Your task to perform on an android device: Go to privacy settings Image 0: 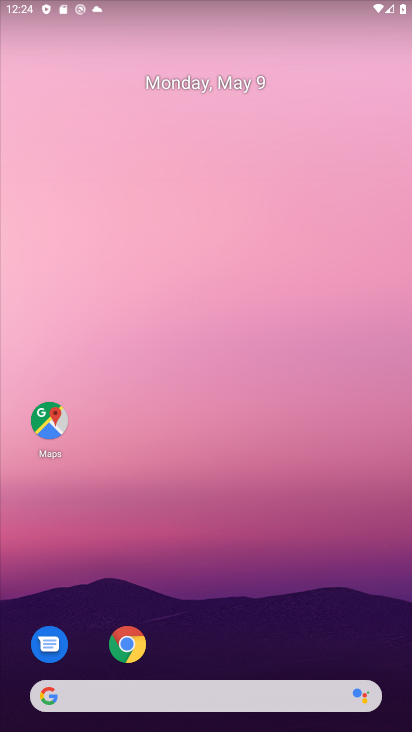
Step 0: click (67, 12)
Your task to perform on an android device: Go to privacy settings Image 1: 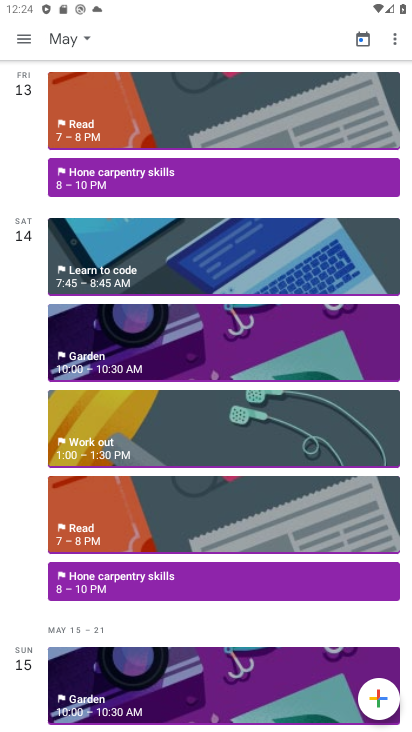
Step 1: press home button
Your task to perform on an android device: Go to privacy settings Image 2: 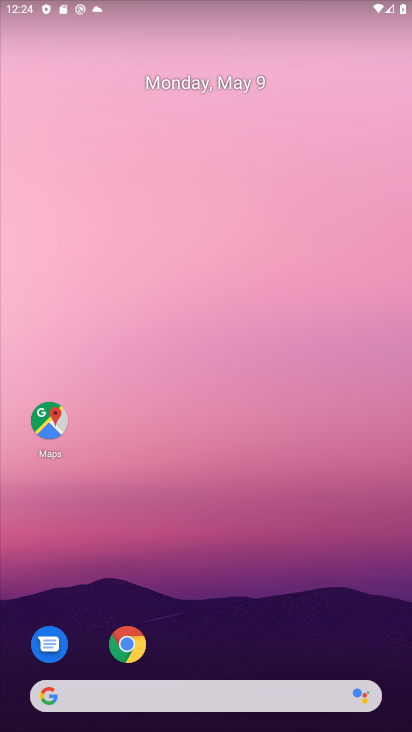
Step 2: drag from (329, 641) to (13, 6)
Your task to perform on an android device: Go to privacy settings Image 3: 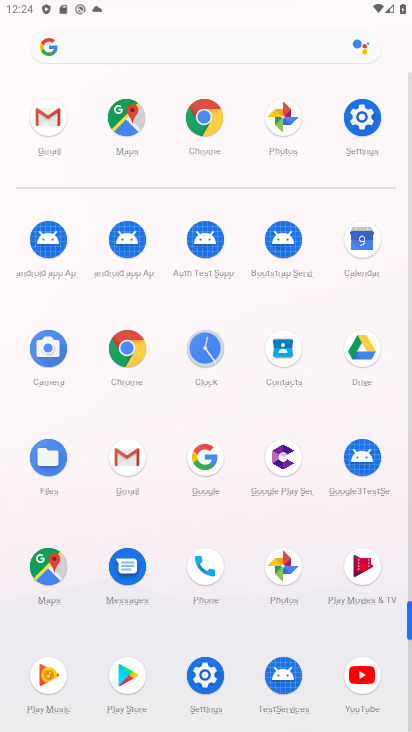
Step 3: click (358, 125)
Your task to perform on an android device: Go to privacy settings Image 4: 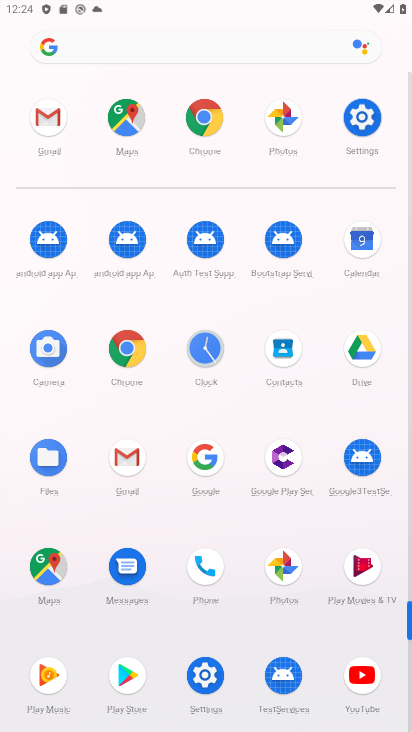
Step 4: click (358, 125)
Your task to perform on an android device: Go to privacy settings Image 5: 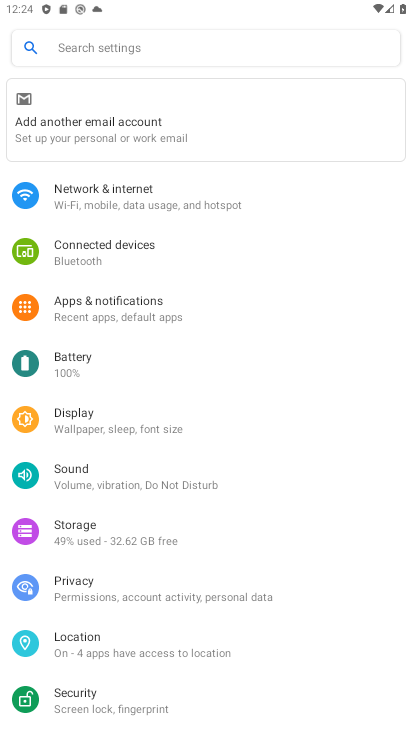
Step 5: click (82, 589)
Your task to perform on an android device: Go to privacy settings Image 6: 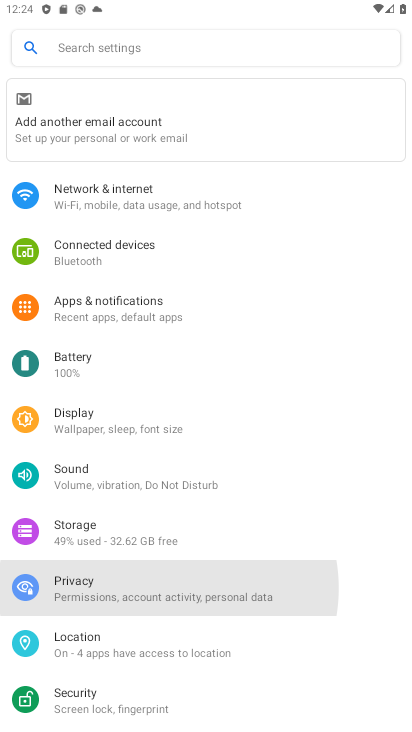
Step 6: click (82, 581)
Your task to perform on an android device: Go to privacy settings Image 7: 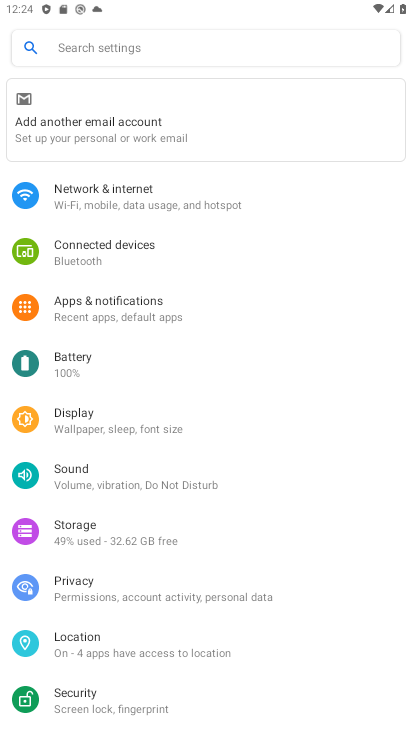
Step 7: click (85, 581)
Your task to perform on an android device: Go to privacy settings Image 8: 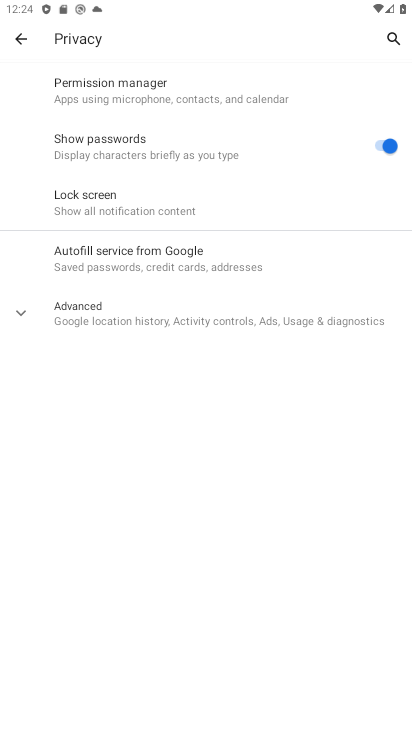
Step 8: task complete